Your task to perform on an android device: Open location settings Image 0: 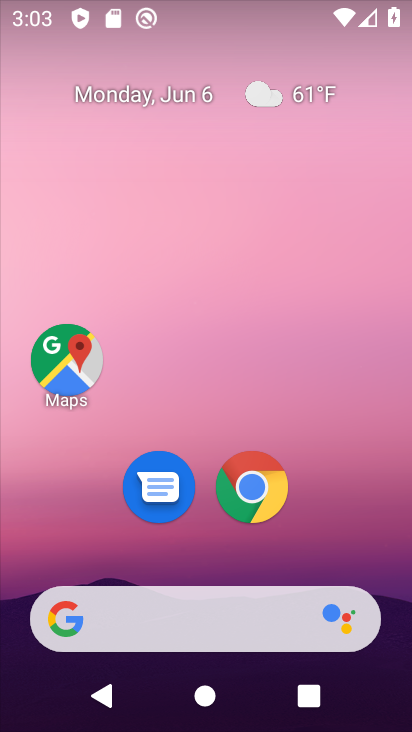
Step 0: drag from (115, 582) to (230, 189)
Your task to perform on an android device: Open location settings Image 1: 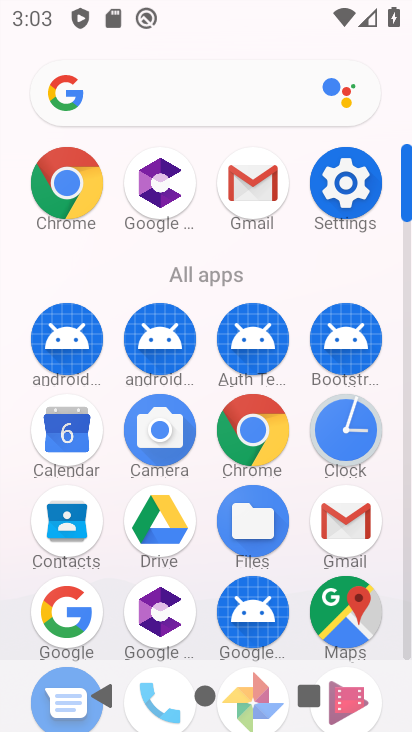
Step 1: drag from (159, 662) to (214, 377)
Your task to perform on an android device: Open location settings Image 2: 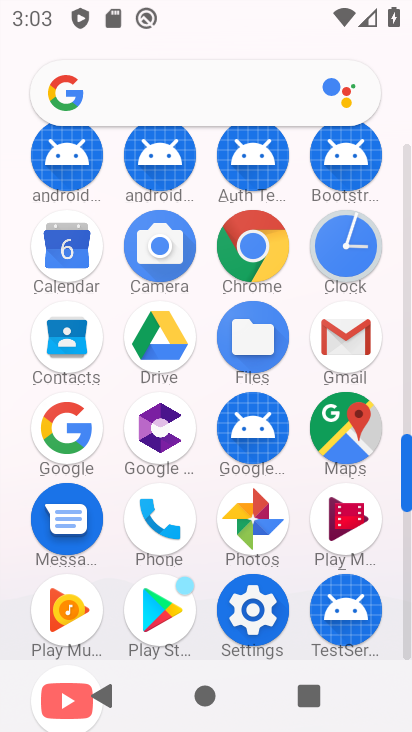
Step 2: click (252, 627)
Your task to perform on an android device: Open location settings Image 3: 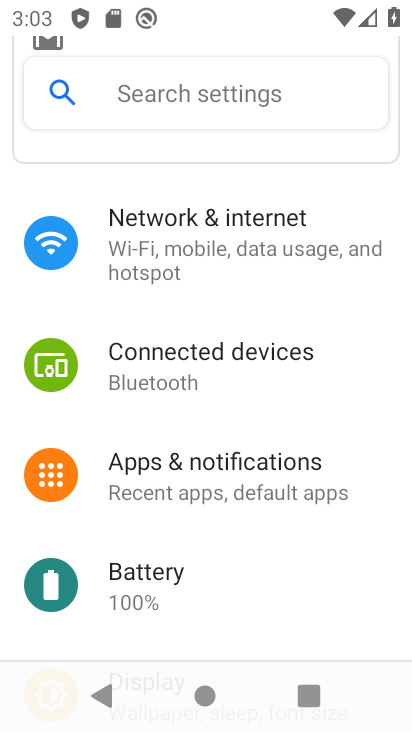
Step 3: drag from (210, 611) to (320, 282)
Your task to perform on an android device: Open location settings Image 4: 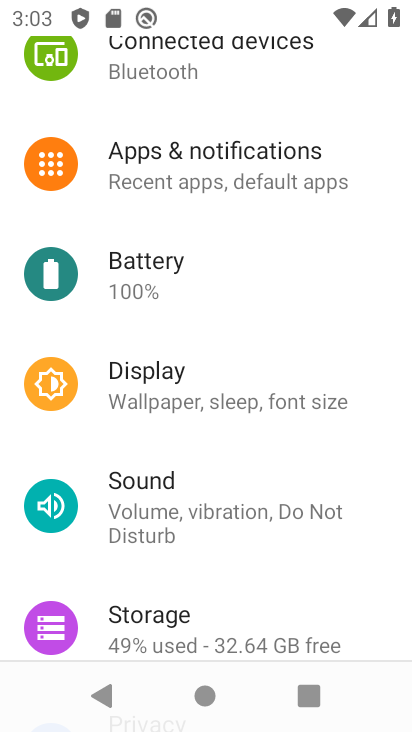
Step 4: drag from (114, 567) to (258, 256)
Your task to perform on an android device: Open location settings Image 5: 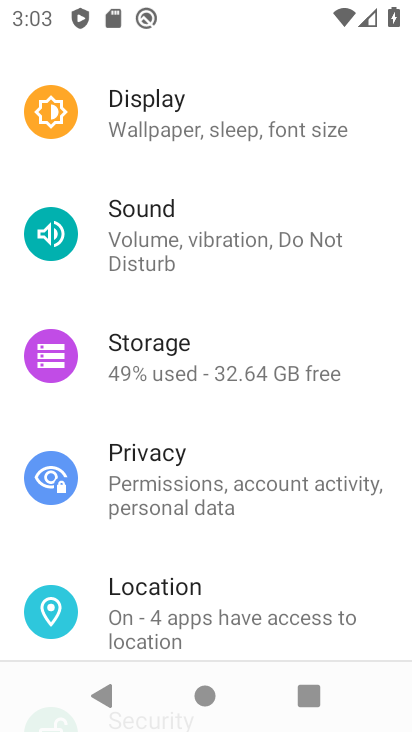
Step 5: click (177, 611)
Your task to perform on an android device: Open location settings Image 6: 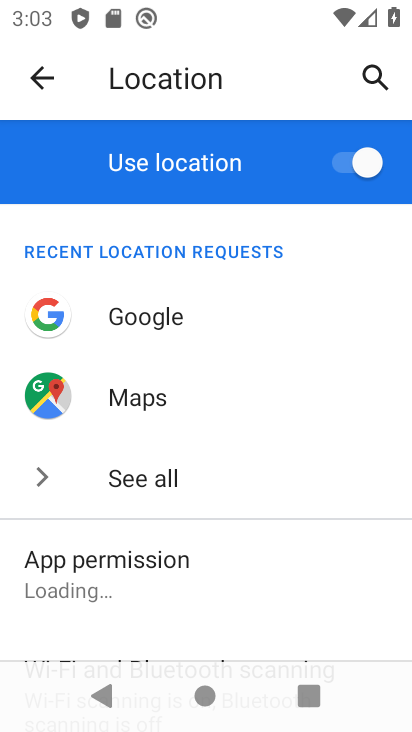
Step 6: task complete